Your task to perform on an android device: What's the weather going to be this weekend? Image 0: 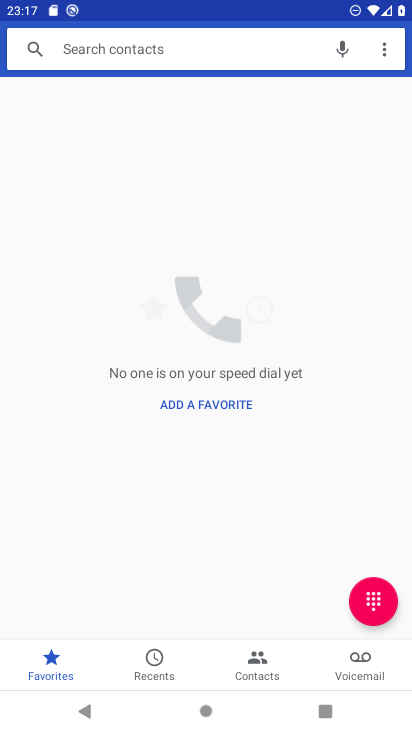
Step 0: press home button
Your task to perform on an android device: What's the weather going to be this weekend? Image 1: 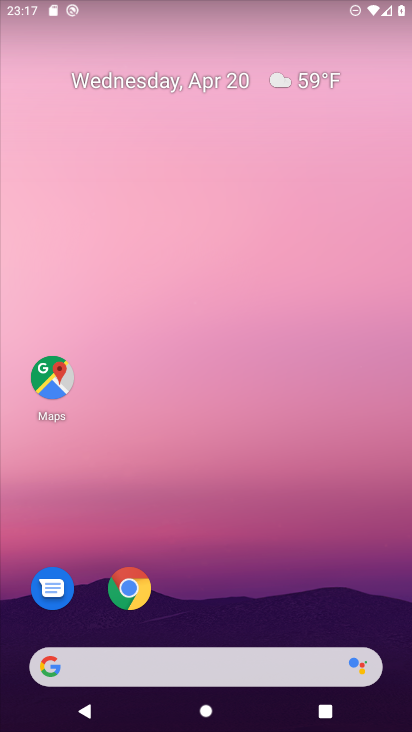
Step 1: click (277, 78)
Your task to perform on an android device: What's the weather going to be this weekend? Image 2: 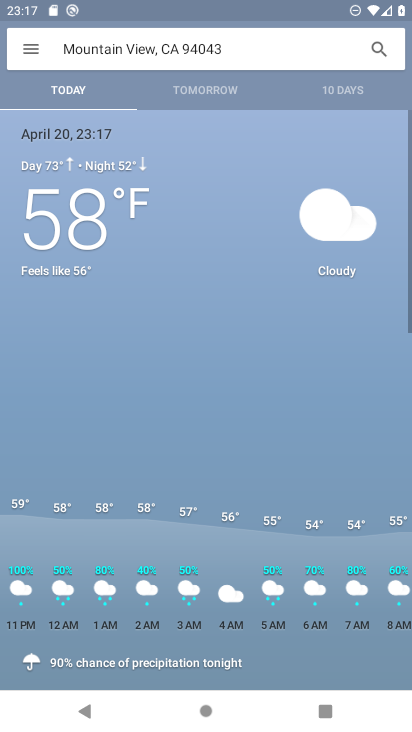
Step 2: click (339, 91)
Your task to perform on an android device: What's the weather going to be this weekend? Image 3: 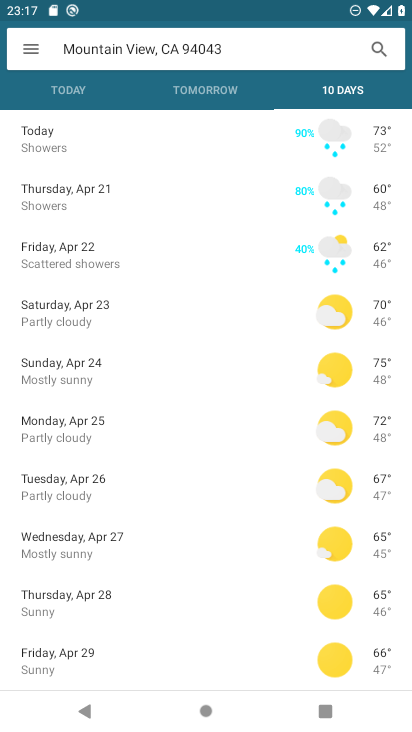
Step 3: click (41, 312)
Your task to perform on an android device: What's the weather going to be this weekend? Image 4: 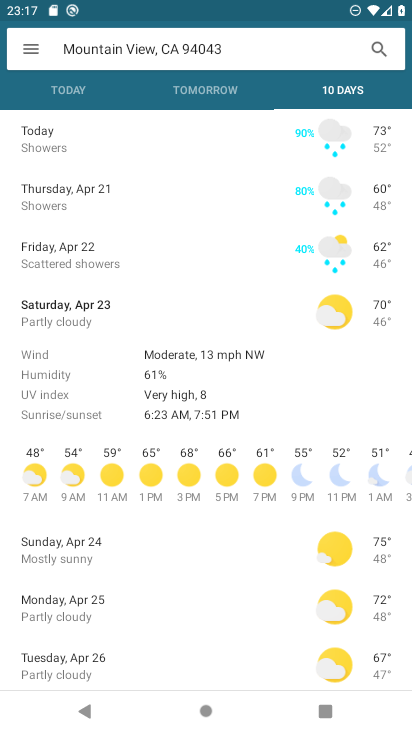
Step 4: click (40, 312)
Your task to perform on an android device: What's the weather going to be this weekend? Image 5: 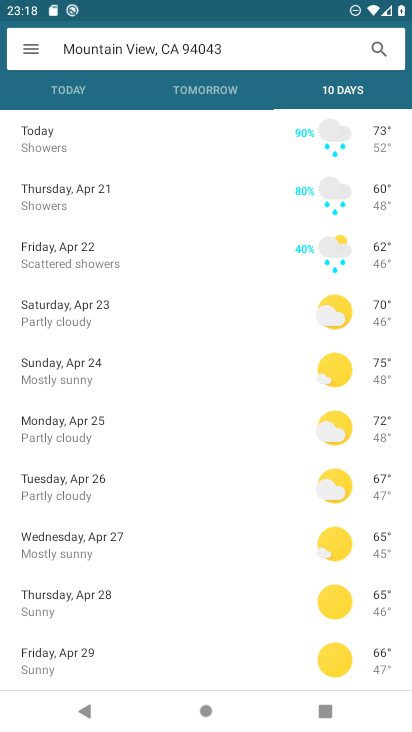
Step 5: task complete